Your task to perform on an android device: What's the weather going to be this weekend? Image 0: 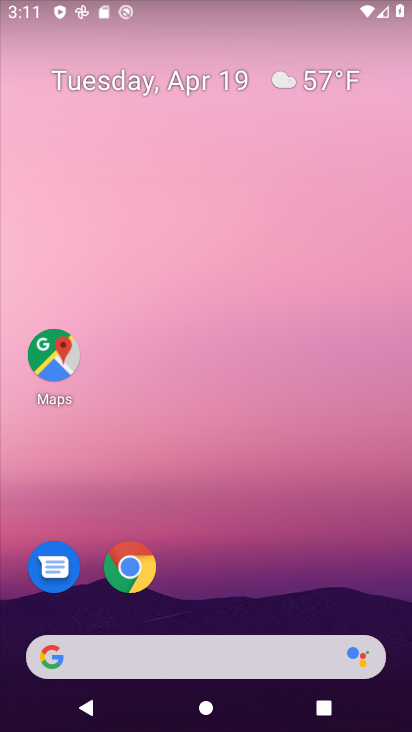
Step 0: drag from (372, 596) to (362, 132)
Your task to perform on an android device: What's the weather going to be this weekend? Image 1: 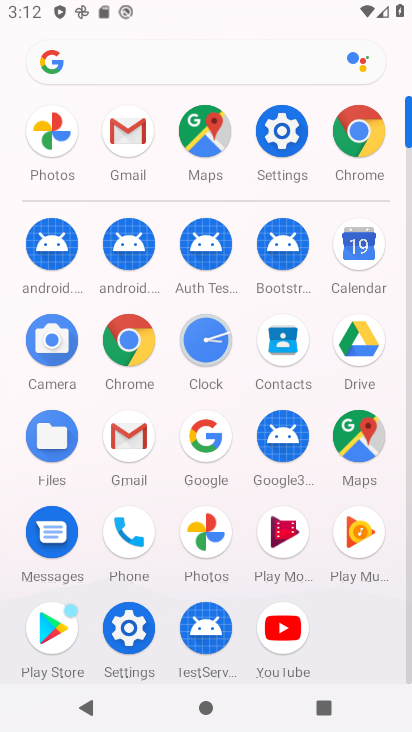
Step 1: click (196, 448)
Your task to perform on an android device: What's the weather going to be this weekend? Image 2: 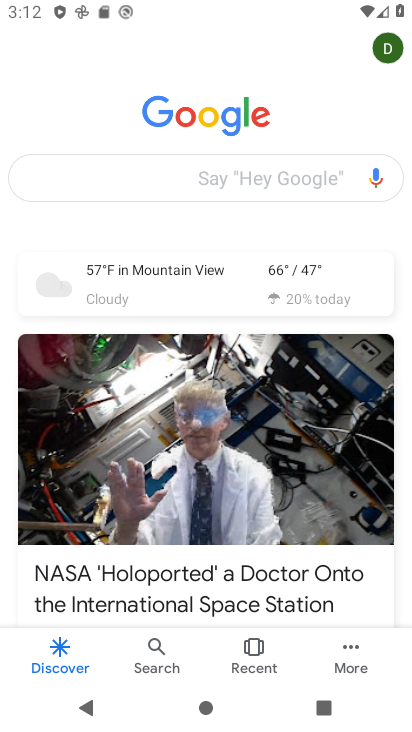
Step 2: click (170, 173)
Your task to perform on an android device: What's the weather going to be this weekend? Image 3: 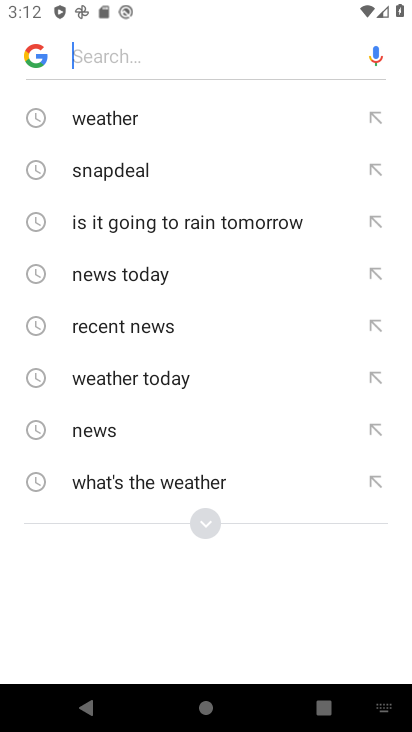
Step 3: click (101, 113)
Your task to perform on an android device: What's the weather going to be this weekend? Image 4: 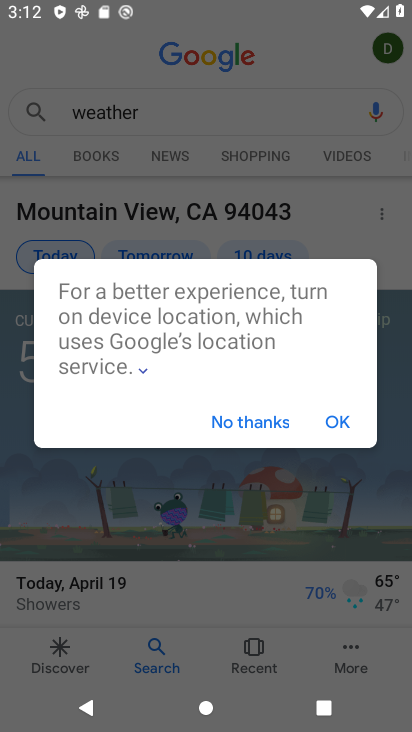
Step 4: click (261, 424)
Your task to perform on an android device: What's the weather going to be this weekend? Image 5: 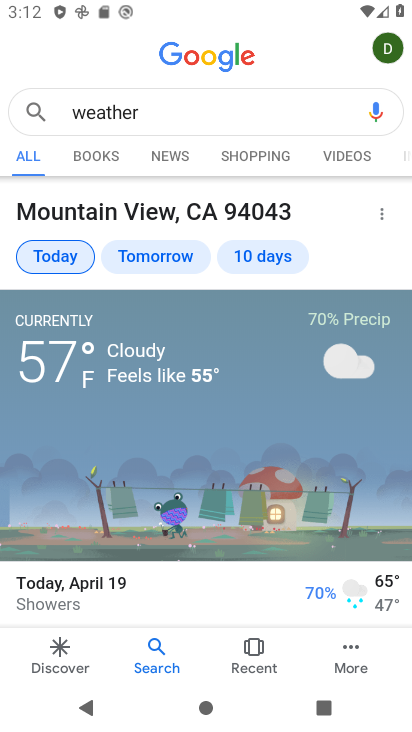
Step 5: click (278, 256)
Your task to perform on an android device: What's the weather going to be this weekend? Image 6: 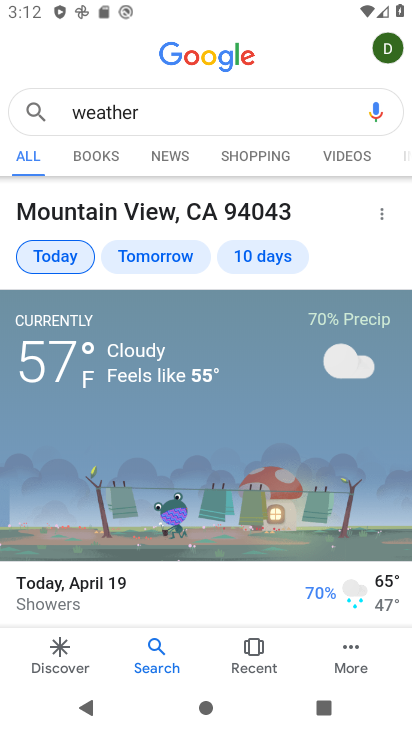
Step 6: click (270, 256)
Your task to perform on an android device: What's the weather going to be this weekend? Image 7: 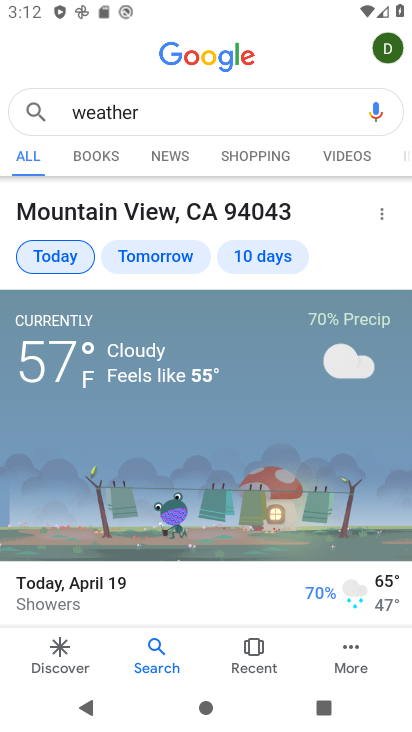
Step 7: drag from (221, 446) to (229, 154)
Your task to perform on an android device: What's the weather going to be this weekend? Image 8: 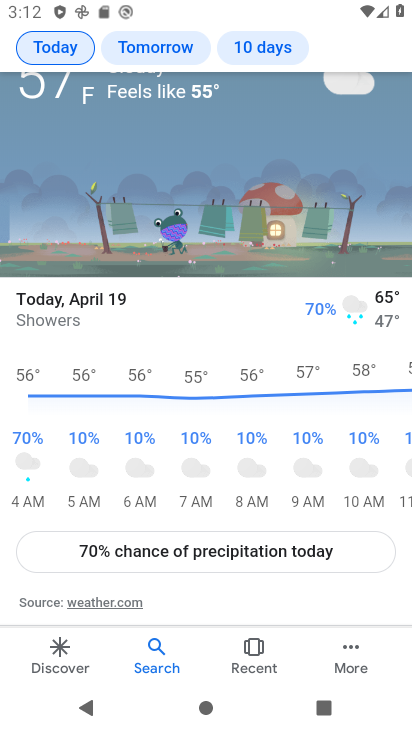
Step 8: drag from (245, 575) to (271, 191)
Your task to perform on an android device: What's the weather going to be this weekend? Image 9: 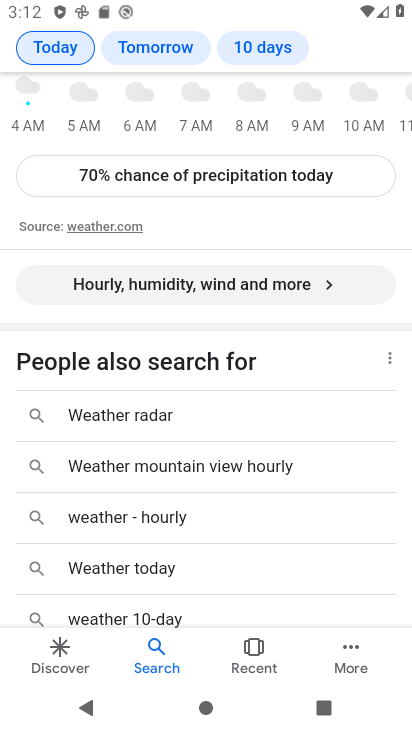
Step 9: drag from (269, 129) to (249, 466)
Your task to perform on an android device: What's the weather going to be this weekend? Image 10: 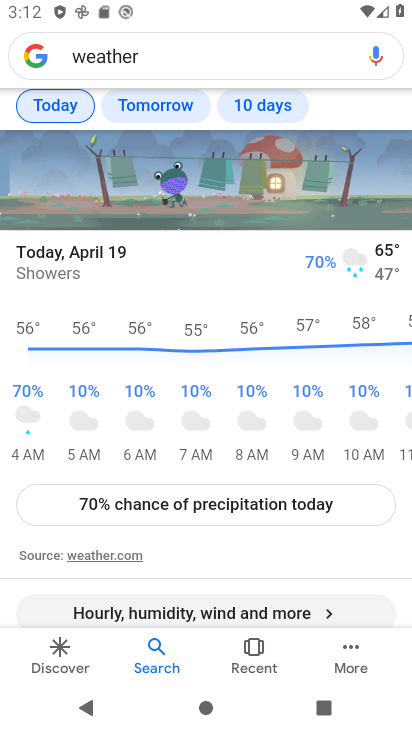
Step 10: drag from (257, 176) to (207, 452)
Your task to perform on an android device: What's the weather going to be this weekend? Image 11: 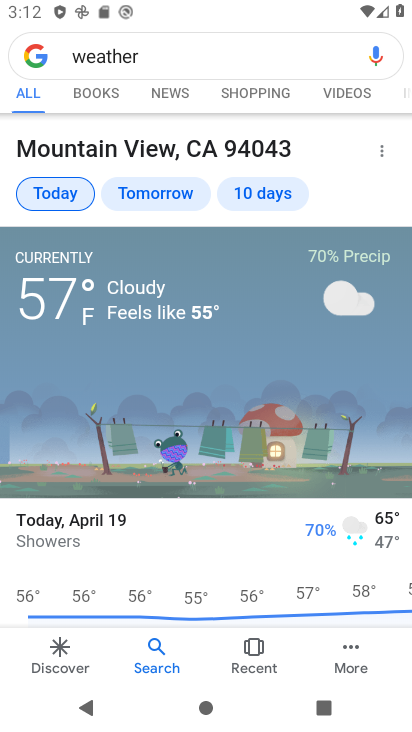
Step 11: click (263, 187)
Your task to perform on an android device: What's the weather going to be this weekend? Image 12: 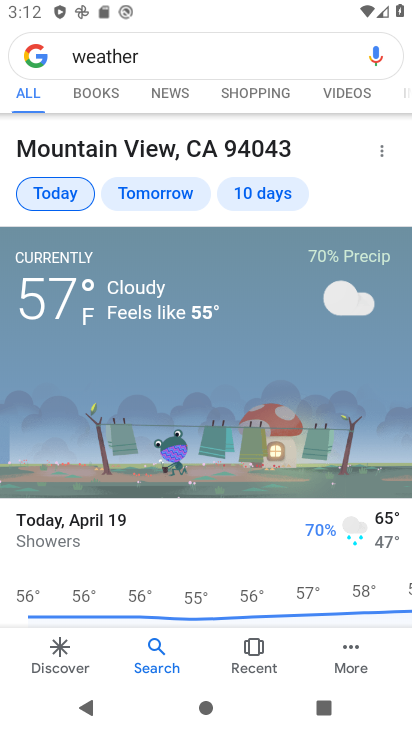
Step 12: click (266, 187)
Your task to perform on an android device: What's the weather going to be this weekend? Image 13: 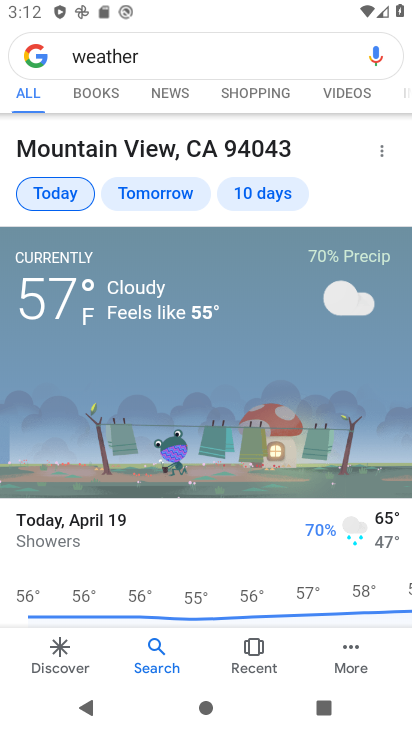
Step 13: click (265, 186)
Your task to perform on an android device: What's the weather going to be this weekend? Image 14: 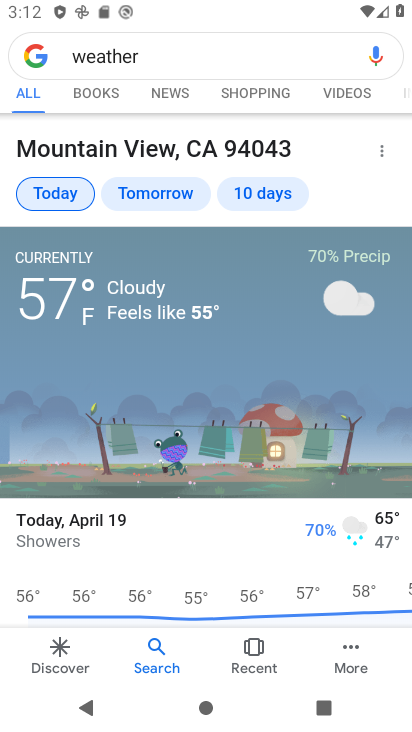
Step 14: click (165, 194)
Your task to perform on an android device: What's the weather going to be this weekend? Image 15: 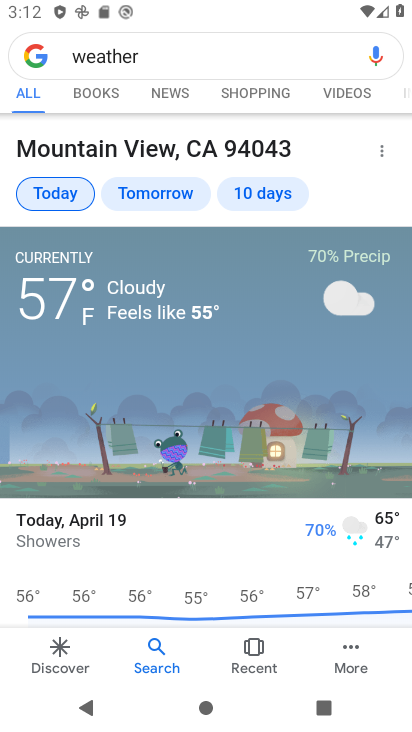
Step 15: click (165, 193)
Your task to perform on an android device: What's the weather going to be this weekend? Image 16: 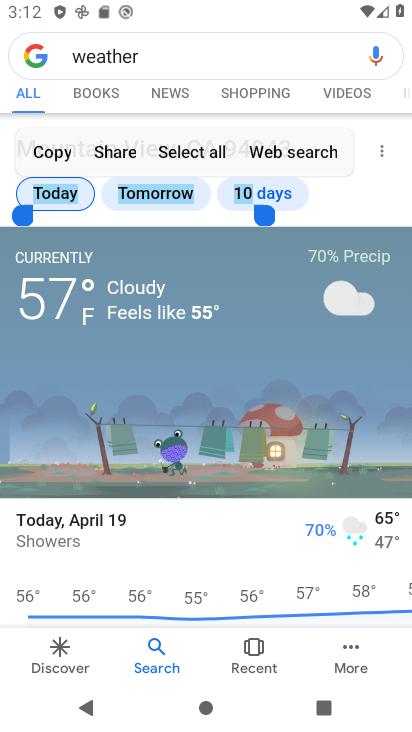
Step 16: click (279, 195)
Your task to perform on an android device: What's the weather going to be this weekend? Image 17: 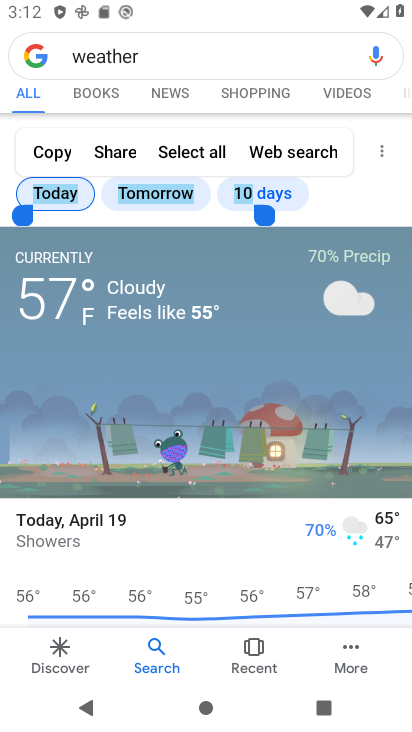
Step 17: click (281, 188)
Your task to perform on an android device: What's the weather going to be this weekend? Image 18: 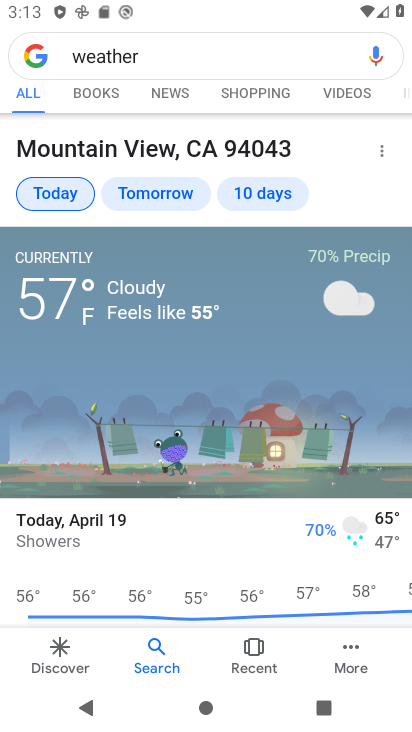
Step 18: task complete